Your task to perform on an android device: Go to internet settings Image 0: 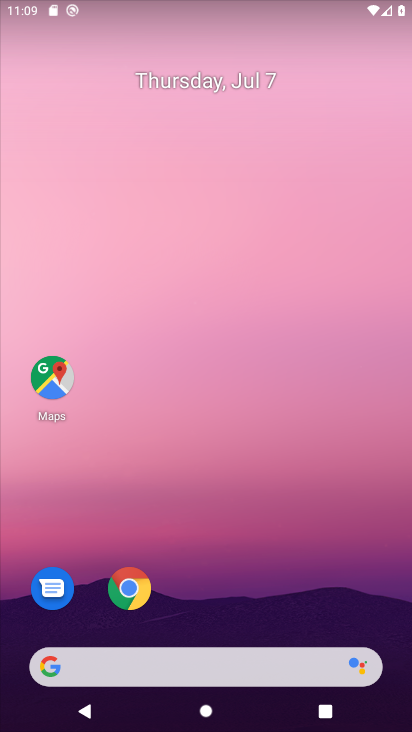
Step 0: drag from (200, 621) to (140, 56)
Your task to perform on an android device: Go to internet settings Image 1: 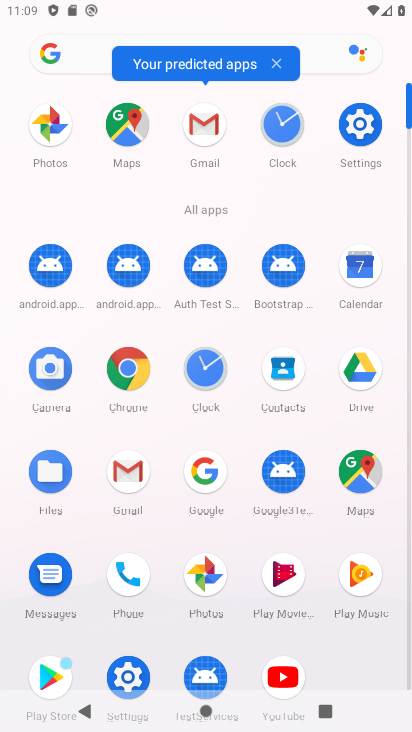
Step 1: click (133, 671)
Your task to perform on an android device: Go to internet settings Image 2: 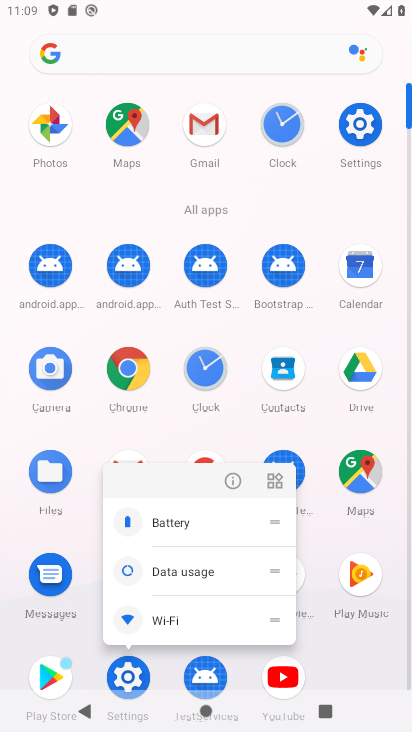
Step 2: click (134, 668)
Your task to perform on an android device: Go to internet settings Image 3: 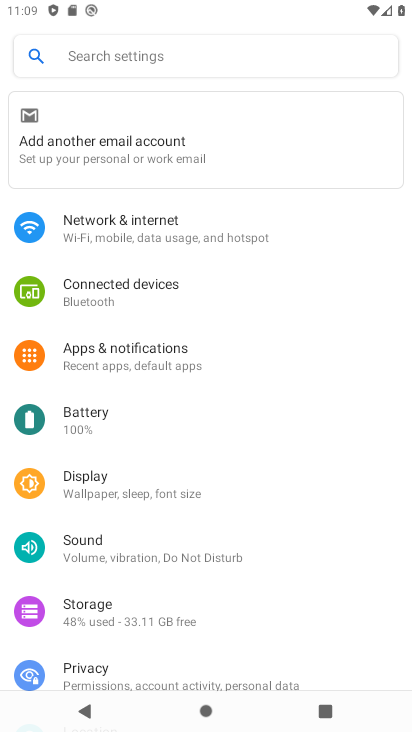
Step 3: click (150, 225)
Your task to perform on an android device: Go to internet settings Image 4: 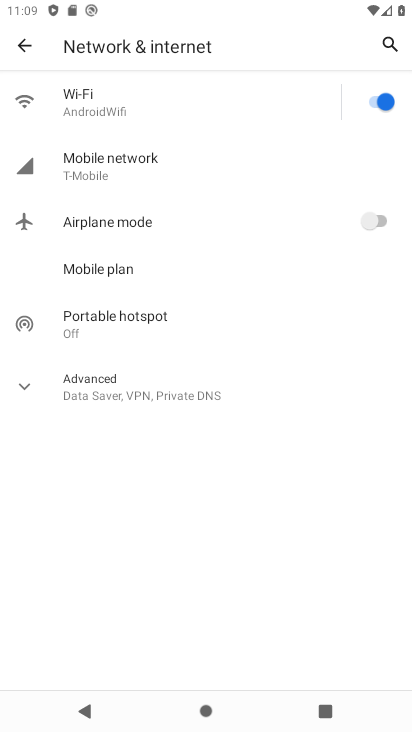
Step 4: click (138, 176)
Your task to perform on an android device: Go to internet settings Image 5: 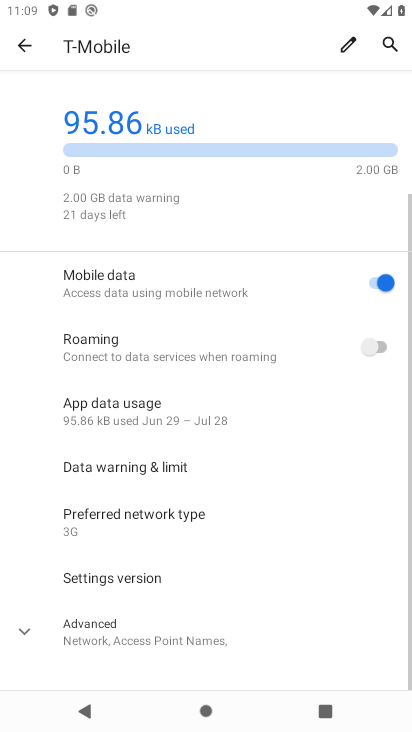
Step 5: task complete